Your task to perform on an android device: snooze an email in the gmail app Image 0: 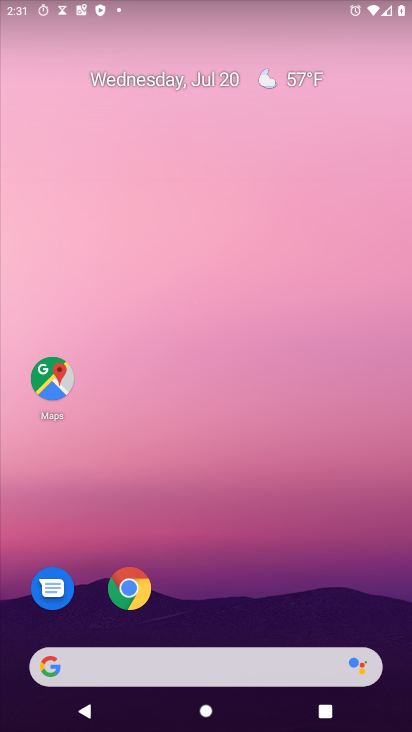
Step 0: drag from (263, 614) to (299, 23)
Your task to perform on an android device: snooze an email in the gmail app Image 1: 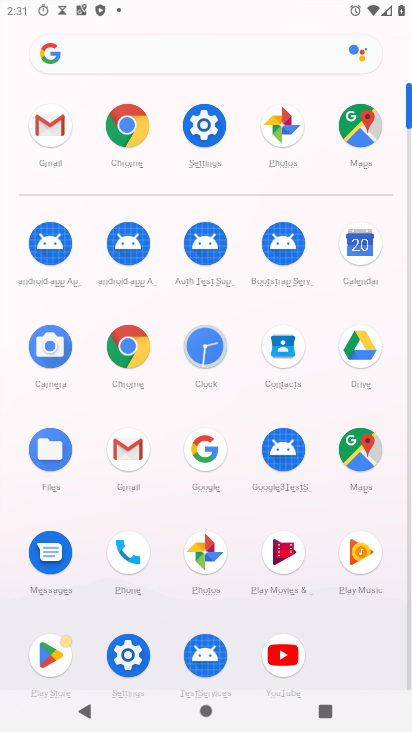
Step 1: click (126, 449)
Your task to perform on an android device: snooze an email in the gmail app Image 2: 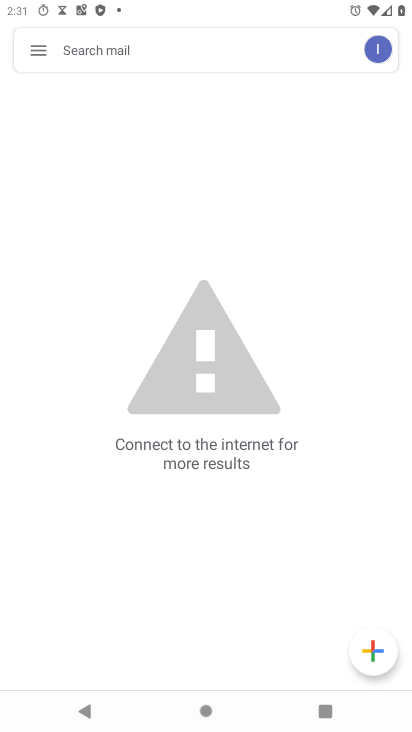
Step 2: click (39, 43)
Your task to perform on an android device: snooze an email in the gmail app Image 3: 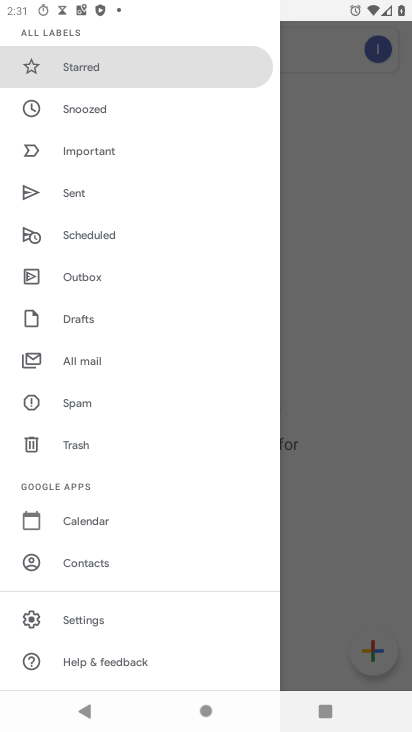
Step 3: click (114, 113)
Your task to perform on an android device: snooze an email in the gmail app Image 4: 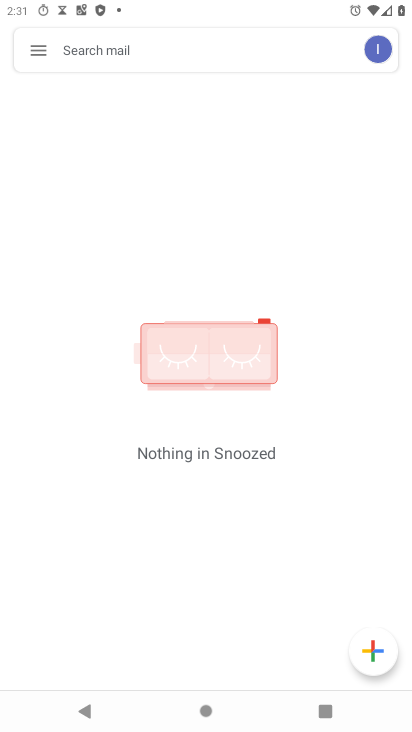
Step 4: task complete